Your task to perform on an android device: Open privacy settings Image 0: 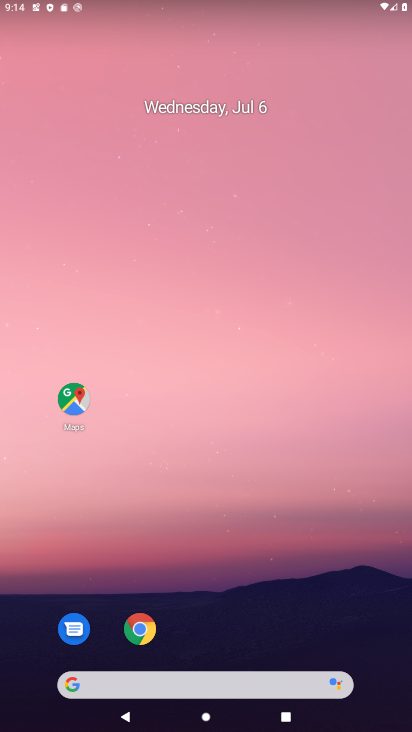
Step 0: drag from (216, 626) to (199, 200)
Your task to perform on an android device: Open privacy settings Image 1: 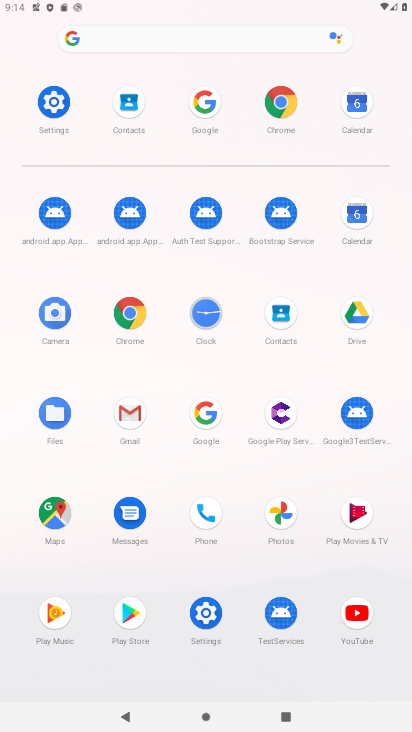
Step 1: click (59, 107)
Your task to perform on an android device: Open privacy settings Image 2: 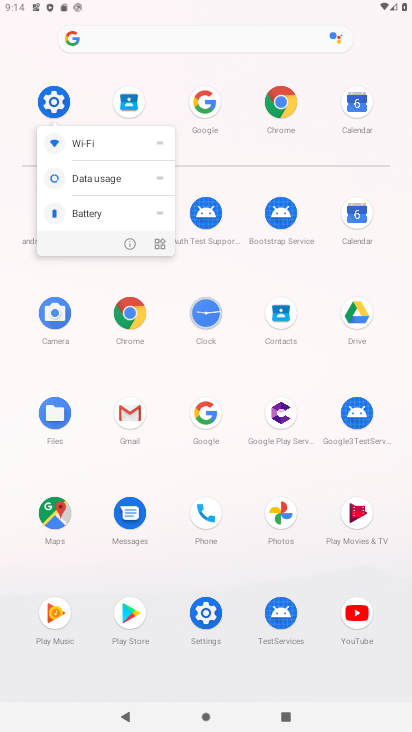
Step 2: click (48, 106)
Your task to perform on an android device: Open privacy settings Image 3: 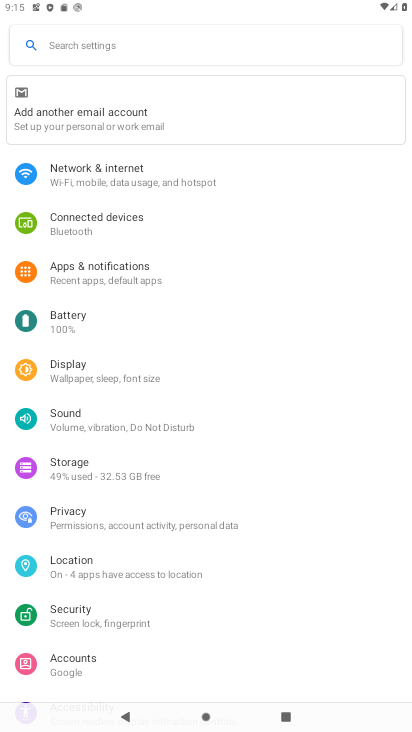
Step 3: click (74, 522)
Your task to perform on an android device: Open privacy settings Image 4: 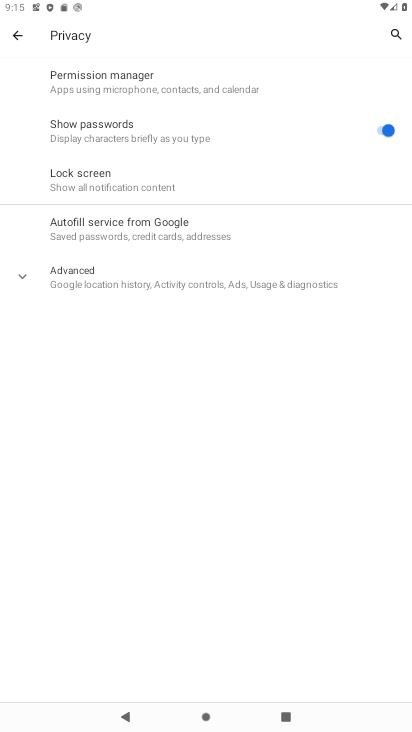
Step 4: task complete